Your task to perform on an android device: Open internet settings Image 0: 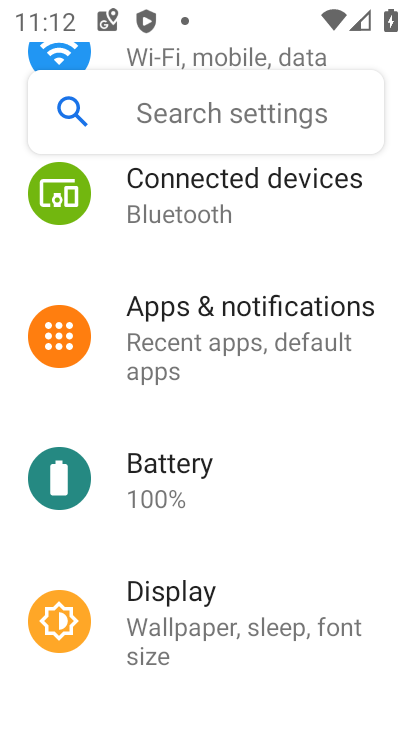
Step 0: drag from (196, 247) to (192, 667)
Your task to perform on an android device: Open internet settings Image 1: 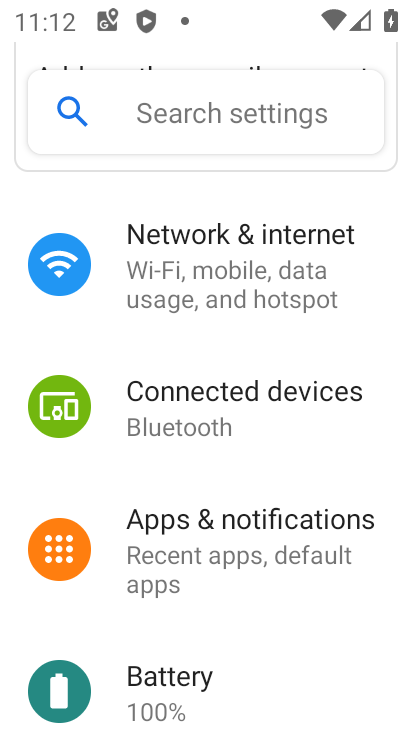
Step 1: click (193, 267)
Your task to perform on an android device: Open internet settings Image 2: 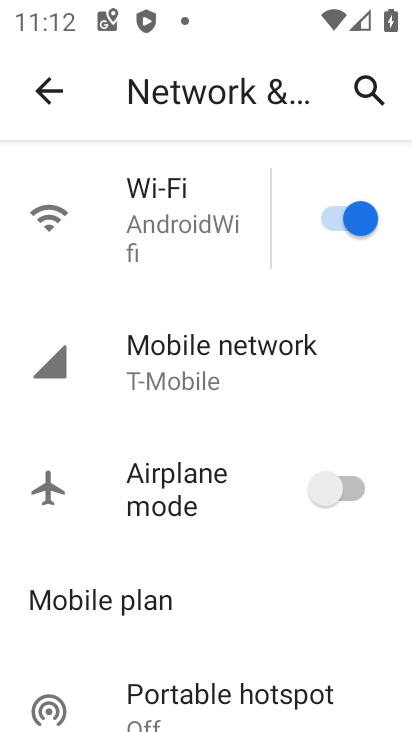
Step 2: click (114, 357)
Your task to perform on an android device: Open internet settings Image 3: 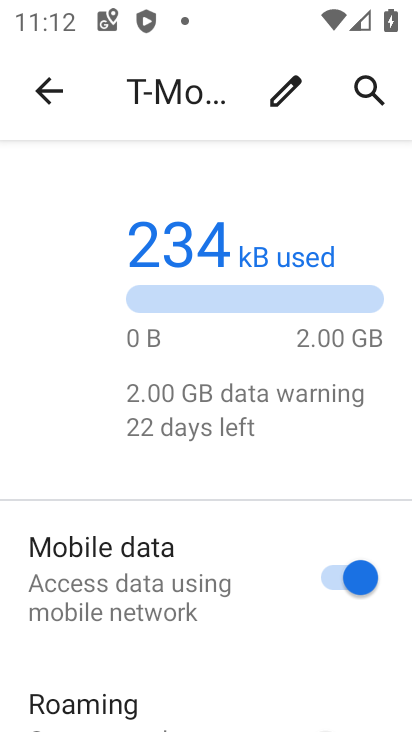
Step 3: task complete